Your task to perform on an android device: Open the stopwatch Image 0: 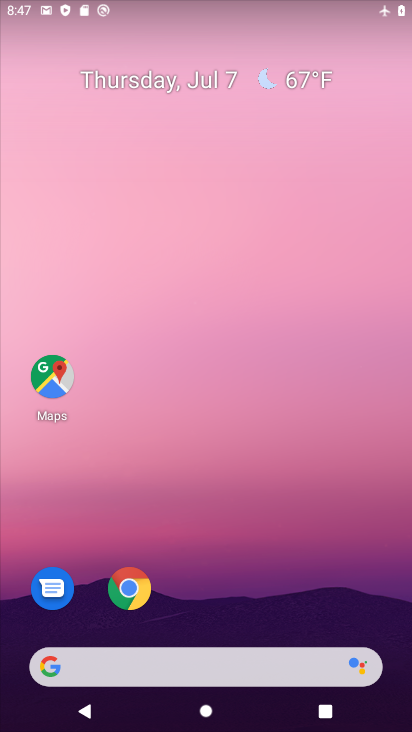
Step 0: drag from (234, 597) to (221, 72)
Your task to perform on an android device: Open the stopwatch Image 1: 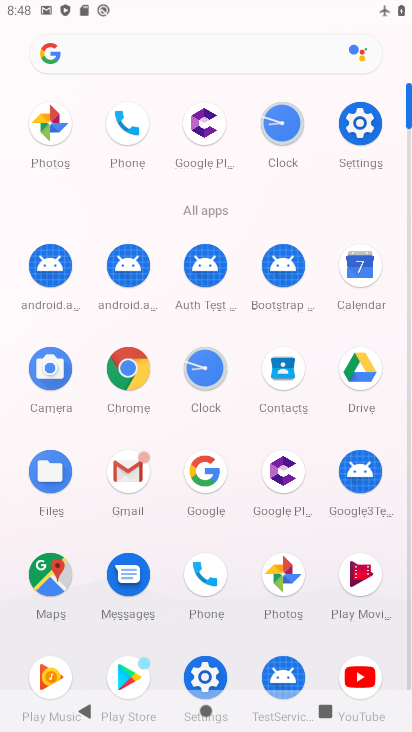
Step 1: click (283, 122)
Your task to perform on an android device: Open the stopwatch Image 2: 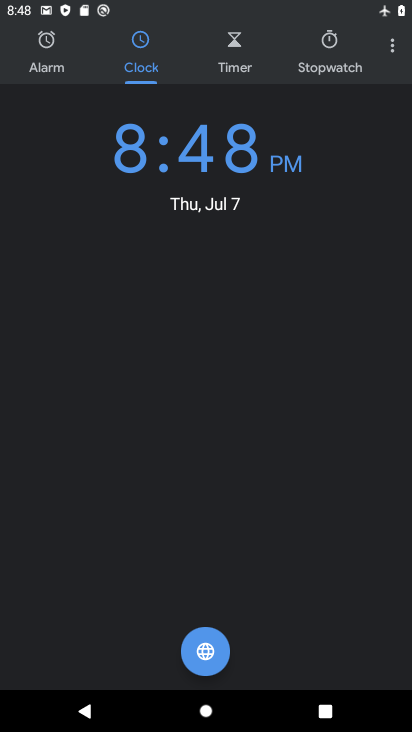
Step 2: click (334, 50)
Your task to perform on an android device: Open the stopwatch Image 3: 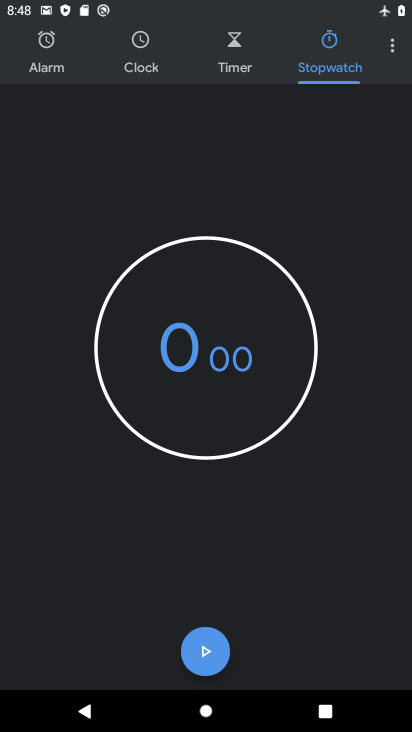
Step 3: task complete